Your task to perform on an android device: stop showing notifications on the lock screen Image 0: 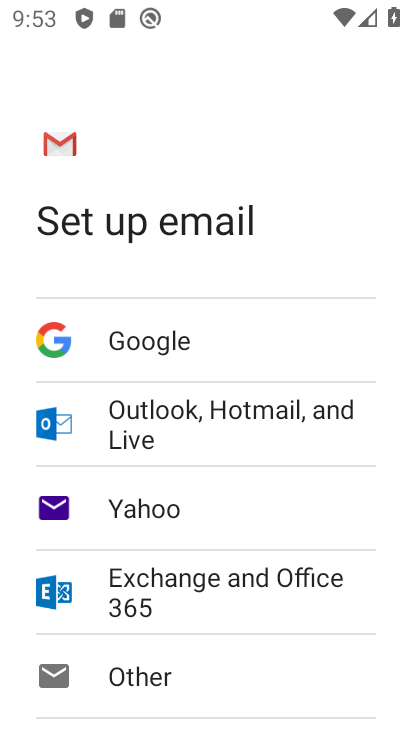
Step 0: press home button
Your task to perform on an android device: stop showing notifications on the lock screen Image 1: 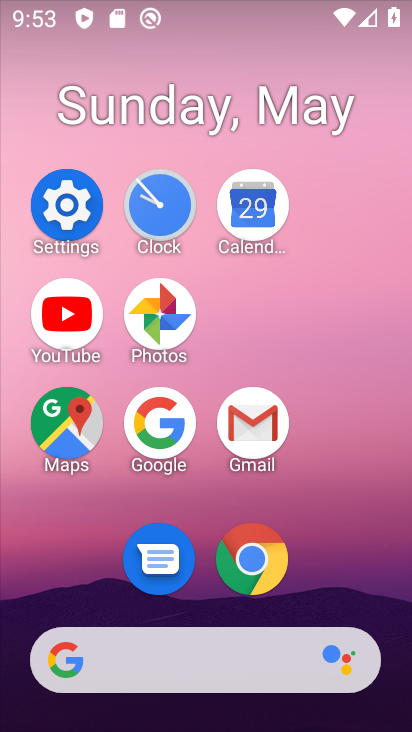
Step 1: click (58, 212)
Your task to perform on an android device: stop showing notifications on the lock screen Image 2: 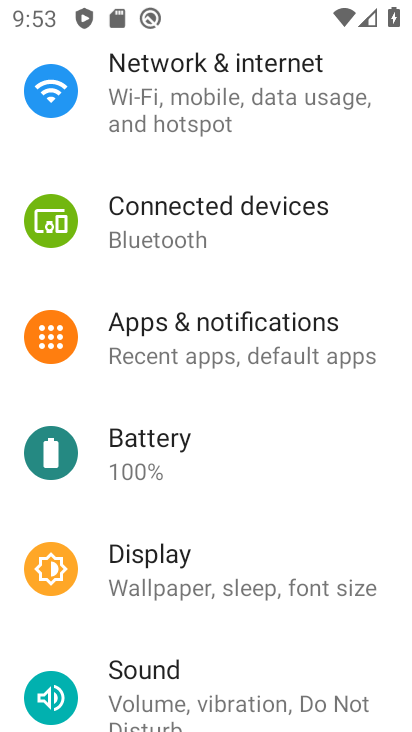
Step 2: click (302, 336)
Your task to perform on an android device: stop showing notifications on the lock screen Image 3: 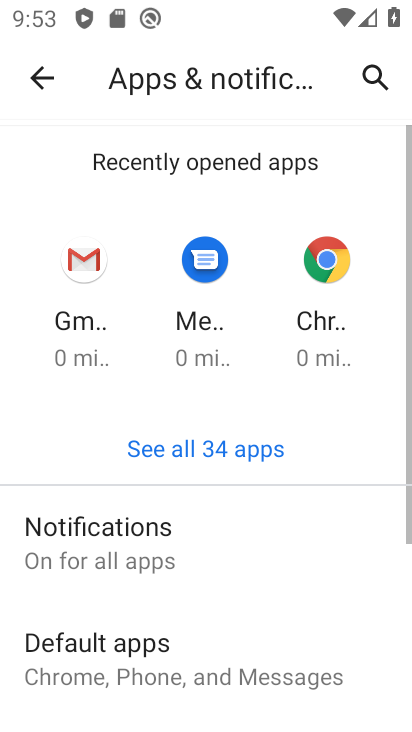
Step 3: click (196, 550)
Your task to perform on an android device: stop showing notifications on the lock screen Image 4: 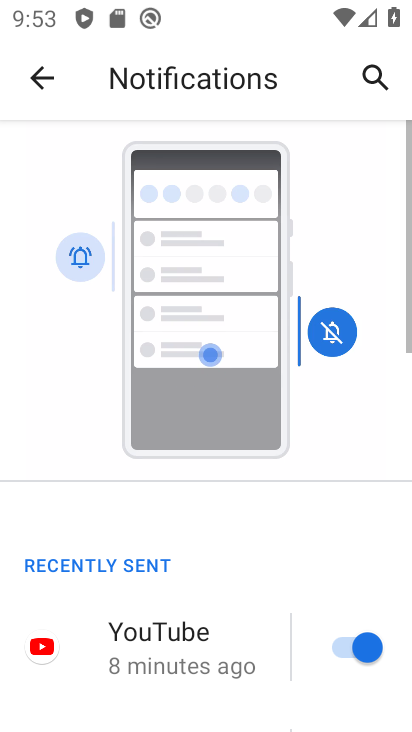
Step 4: drag from (251, 610) to (266, 184)
Your task to perform on an android device: stop showing notifications on the lock screen Image 5: 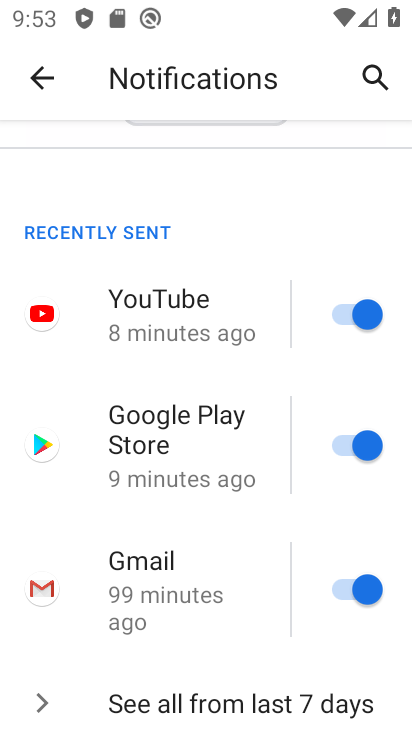
Step 5: drag from (214, 617) to (214, 167)
Your task to perform on an android device: stop showing notifications on the lock screen Image 6: 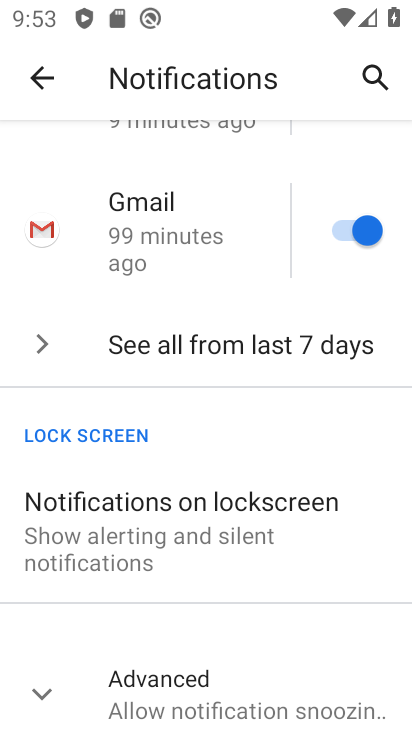
Step 6: click (197, 533)
Your task to perform on an android device: stop showing notifications on the lock screen Image 7: 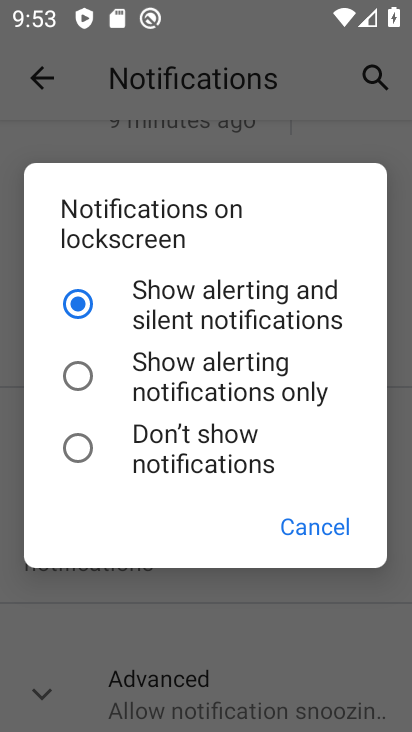
Step 7: click (155, 453)
Your task to perform on an android device: stop showing notifications on the lock screen Image 8: 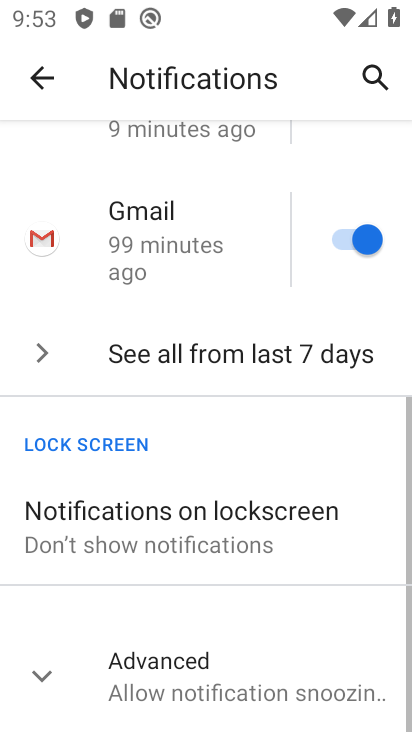
Step 8: task complete